Your task to perform on an android device: Open Google Maps Image 0: 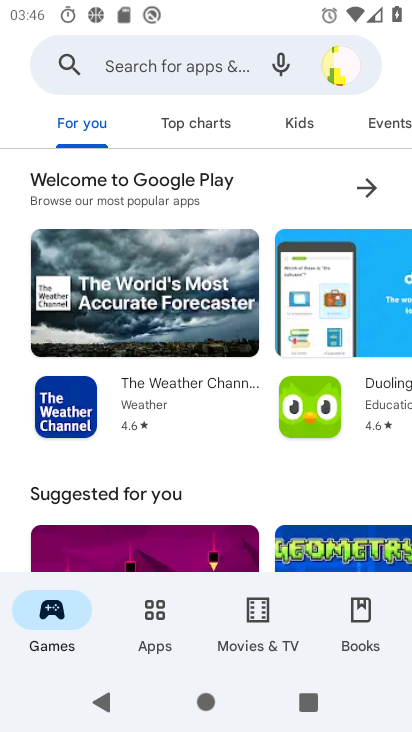
Step 0: press back button
Your task to perform on an android device: Open Google Maps Image 1: 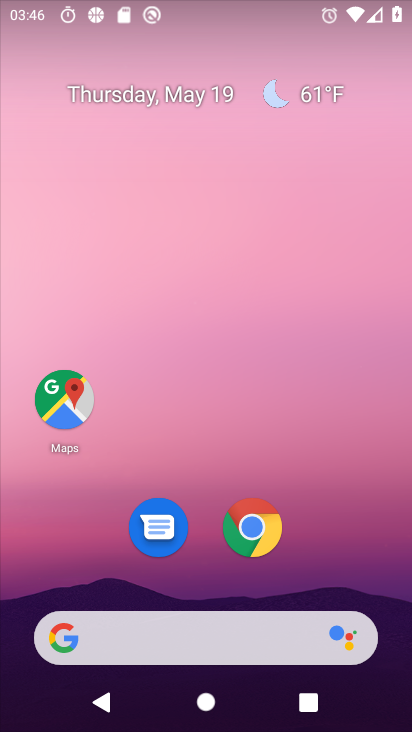
Step 1: click (65, 398)
Your task to perform on an android device: Open Google Maps Image 2: 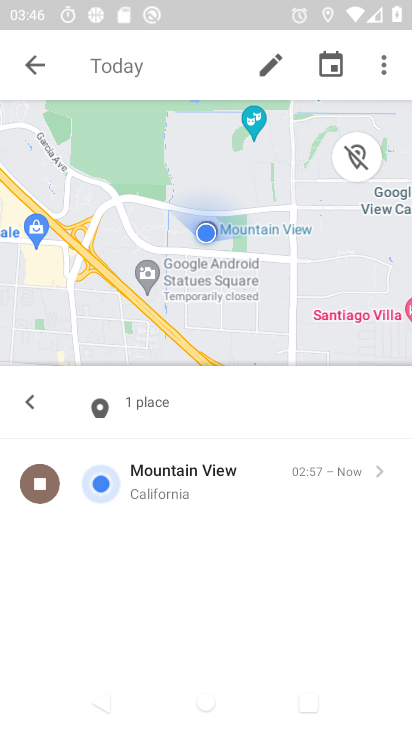
Step 2: task complete